Your task to perform on an android device: open app "ZOOM Cloud Meetings" (install if not already installed) Image 0: 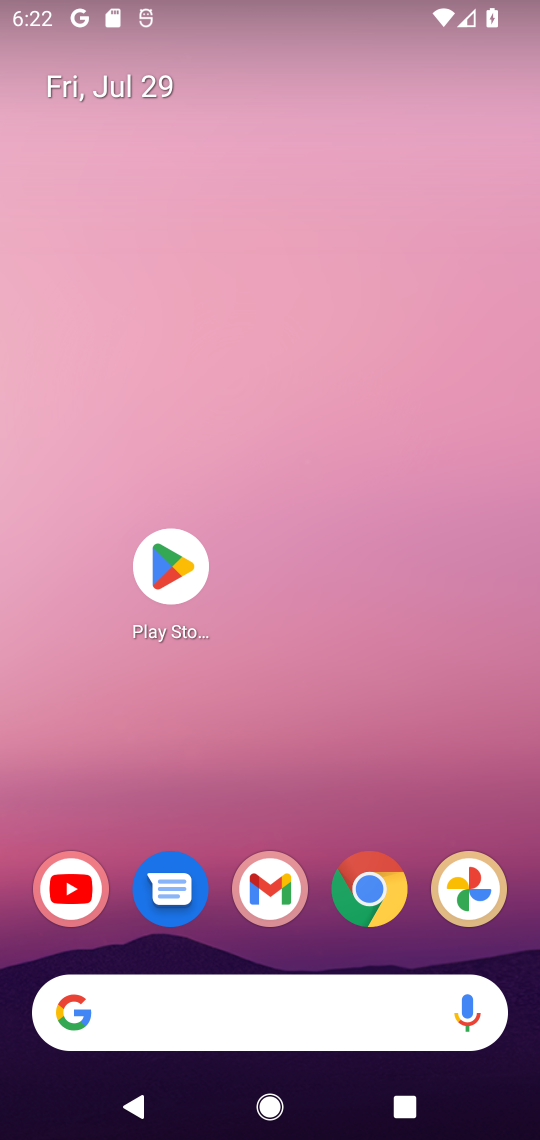
Step 0: click (183, 578)
Your task to perform on an android device: open app "ZOOM Cloud Meetings" (install if not already installed) Image 1: 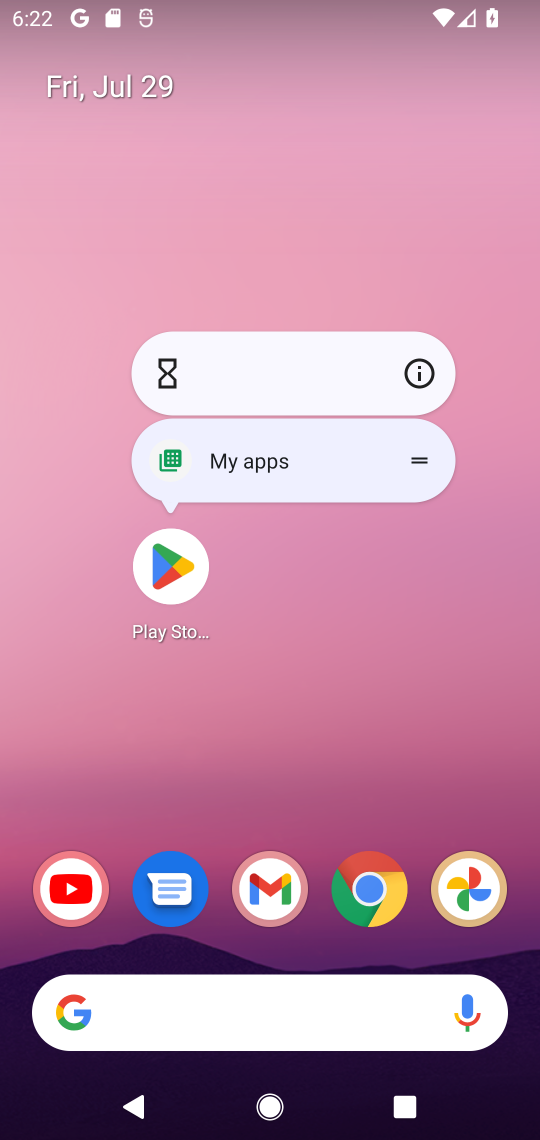
Step 1: click (171, 561)
Your task to perform on an android device: open app "ZOOM Cloud Meetings" (install if not already installed) Image 2: 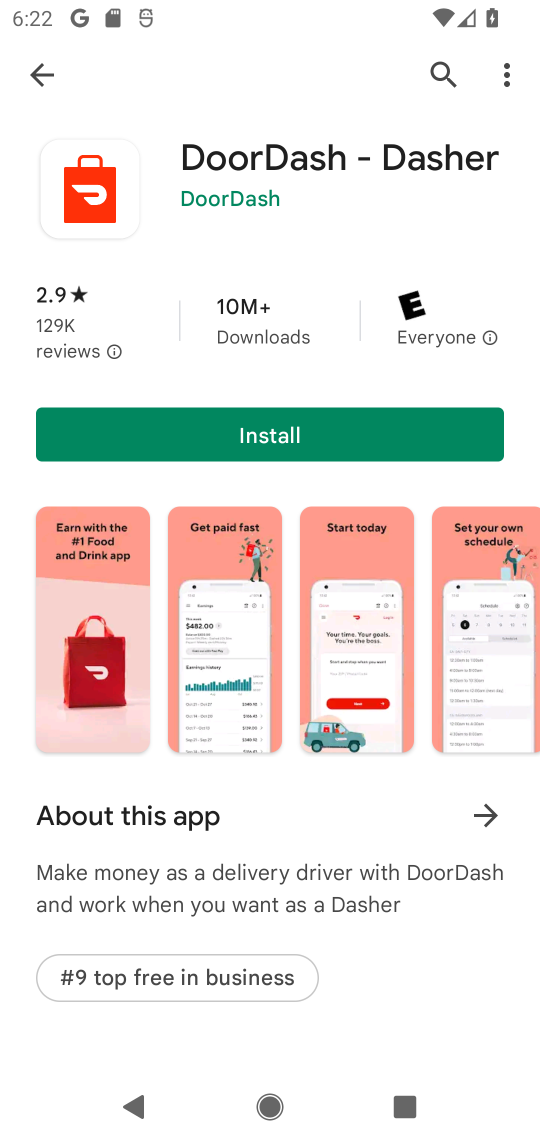
Step 2: click (443, 72)
Your task to perform on an android device: open app "ZOOM Cloud Meetings" (install if not already installed) Image 3: 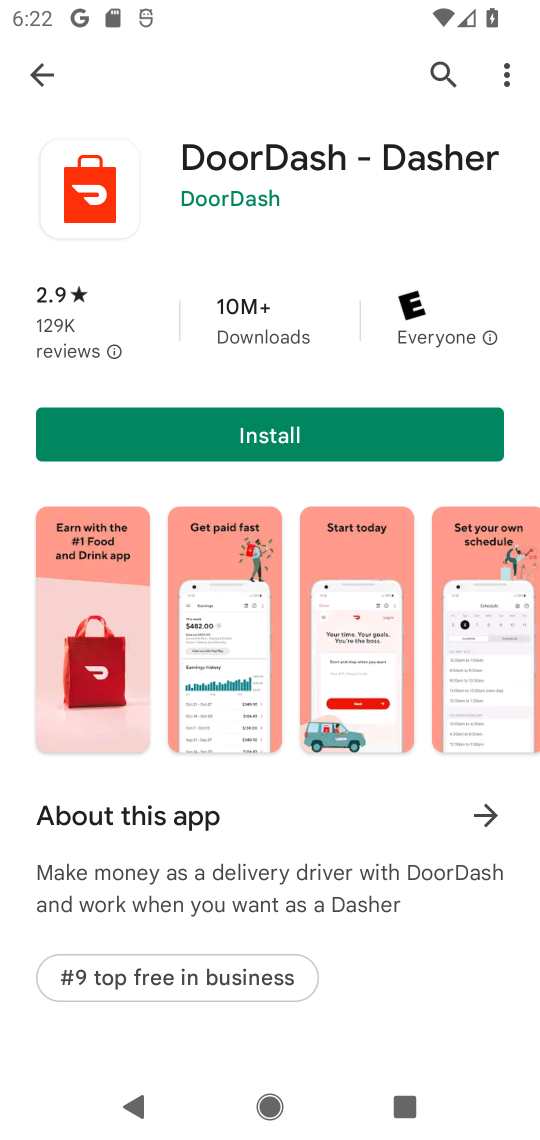
Step 3: click (439, 58)
Your task to perform on an android device: open app "ZOOM Cloud Meetings" (install if not already installed) Image 4: 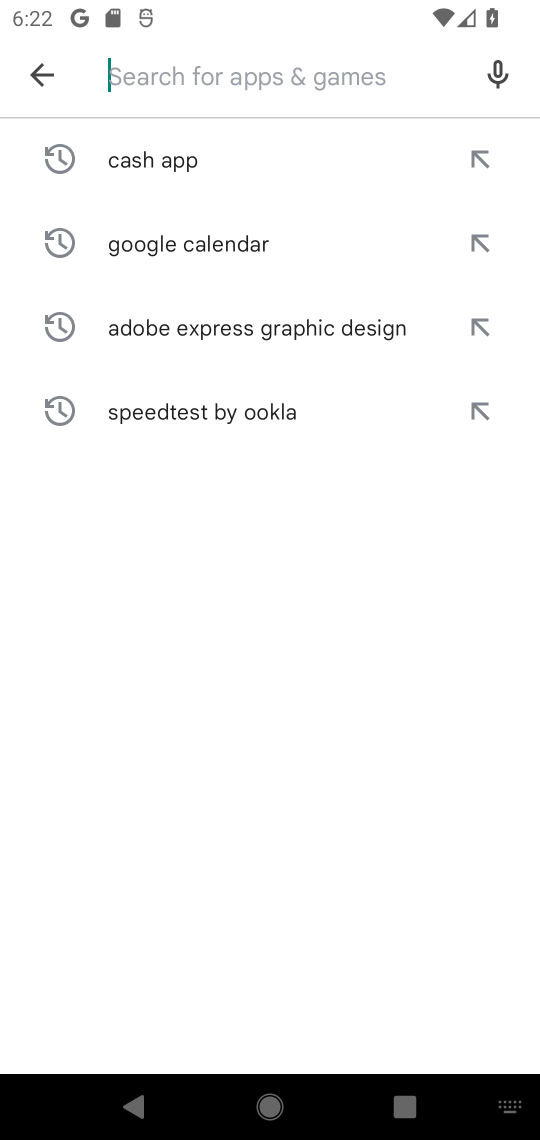
Step 4: type "ZOOM Cloud Meetings"
Your task to perform on an android device: open app "ZOOM Cloud Meetings" (install if not already installed) Image 5: 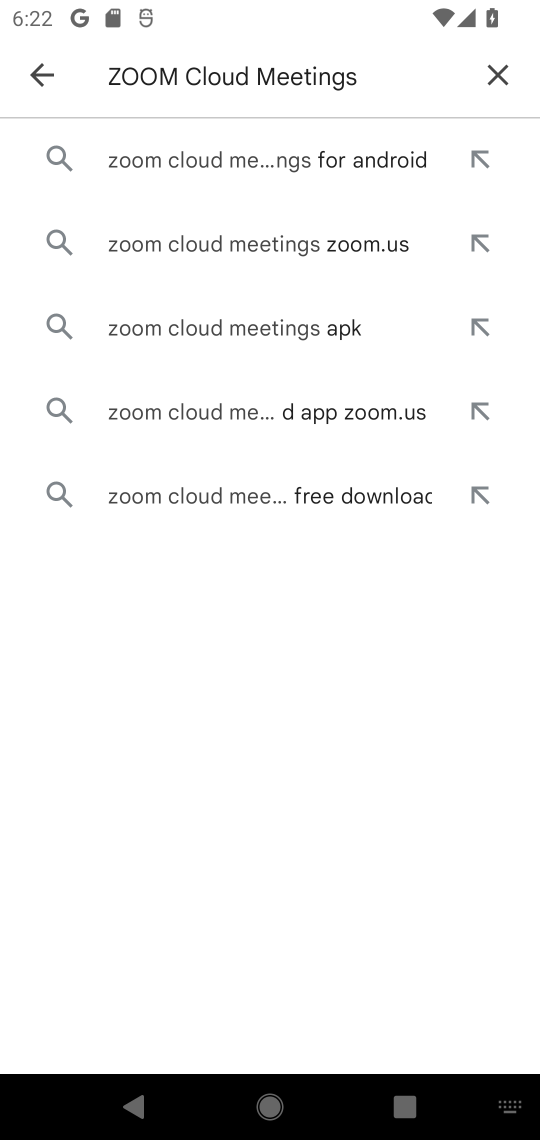
Step 5: click (269, 167)
Your task to perform on an android device: open app "ZOOM Cloud Meetings" (install if not already installed) Image 6: 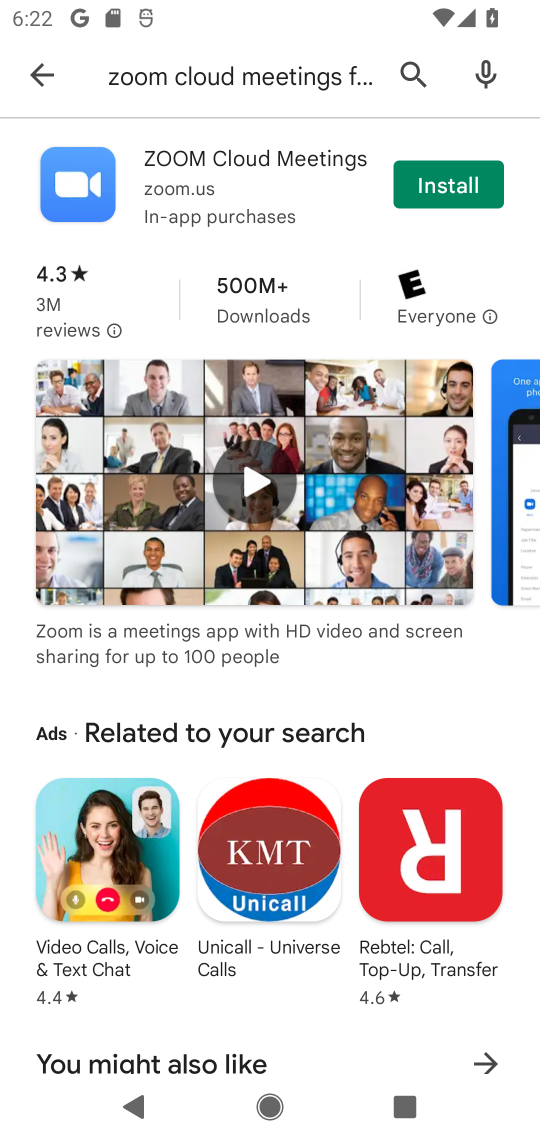
Step 6: click (454, 188)
Your task to perform on an android device: open app "ZOOM Cloud Meetings" (install if not already installed) Image 7: 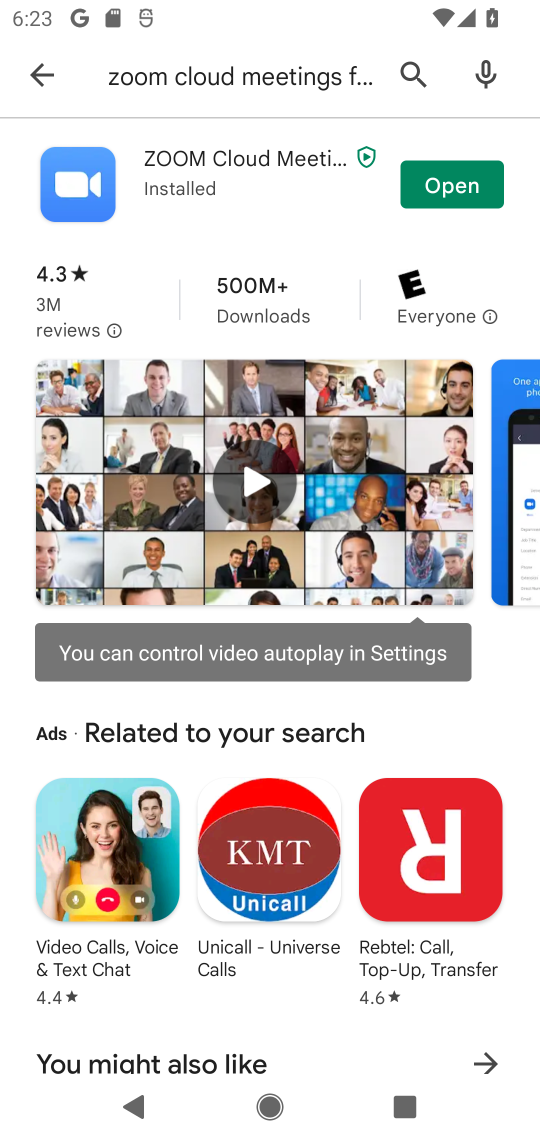
Step 7: click (482, 180)
Your task to perform on an android device: open app "ZOOM Cloud Meetings" (install if not already installed) Image 8: 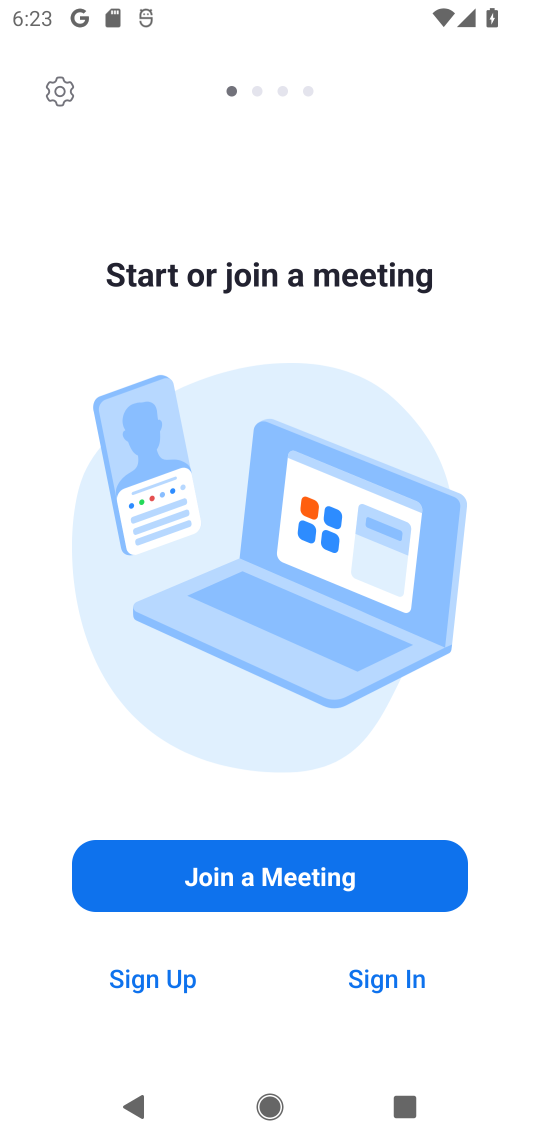
Step 8: task complete